Your task to perform on an android device: Open battery settings Image 0: 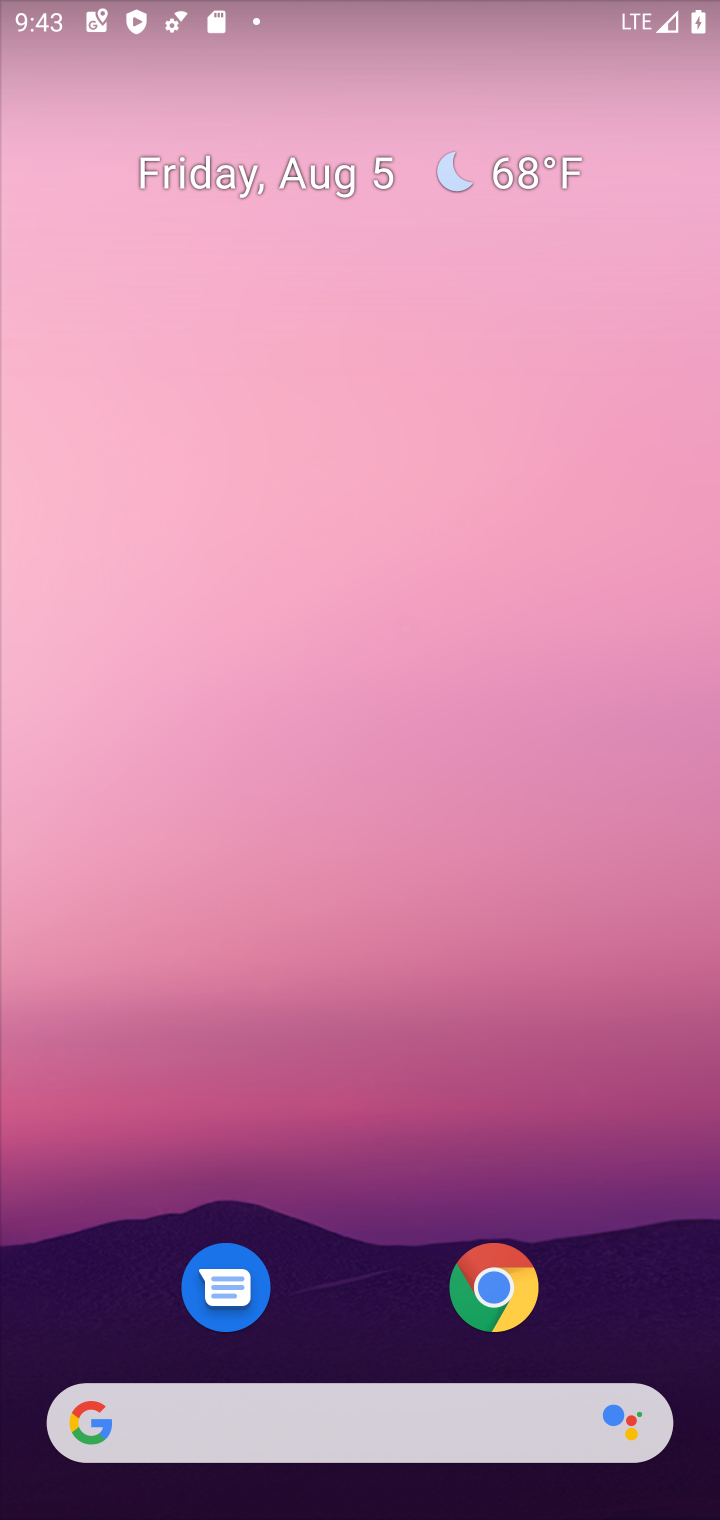
Step 0: drag from (380, 1359) to (380, 151)
Your task to perform on an android device: Open battery settings Image 1: 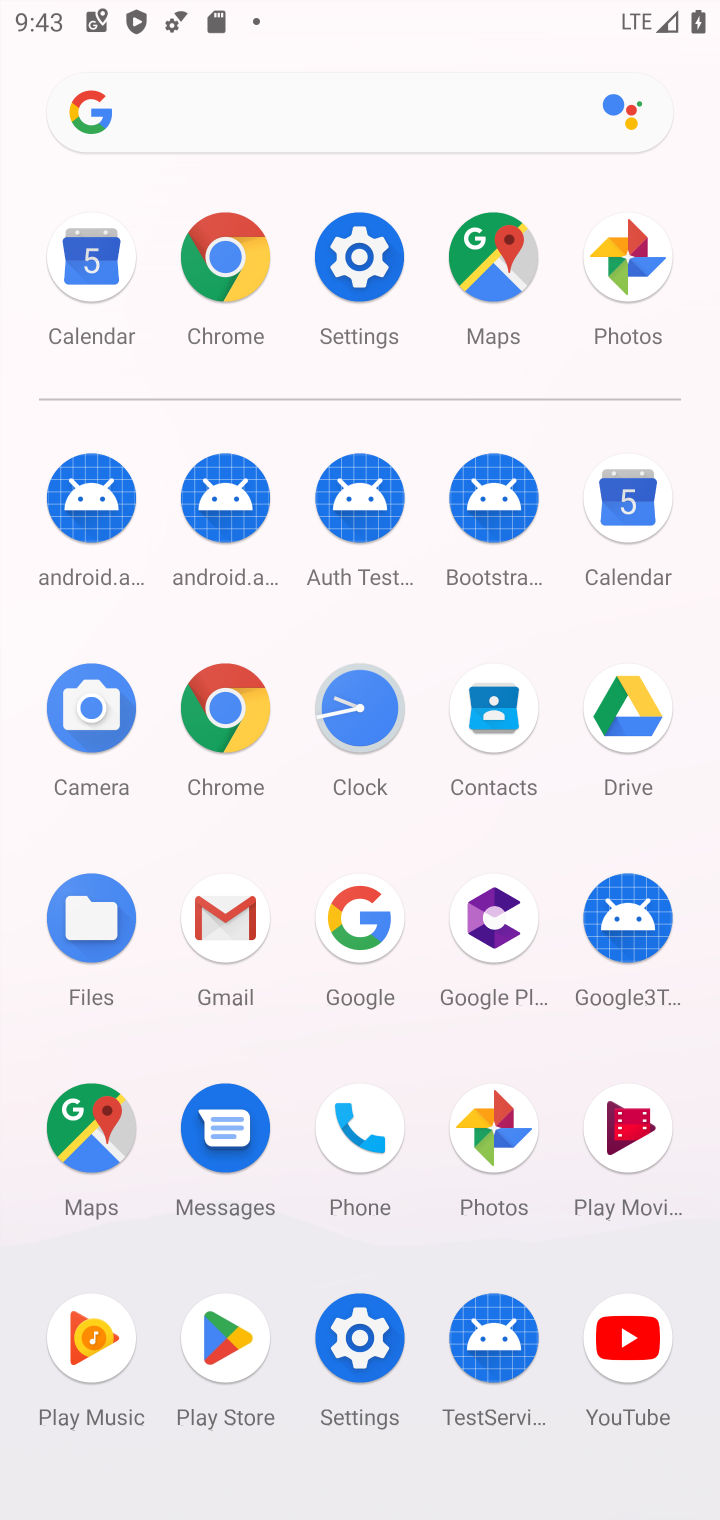
Step 1: click (361, 260)
Your task to perform on an android device: Open battery settings Image 2: 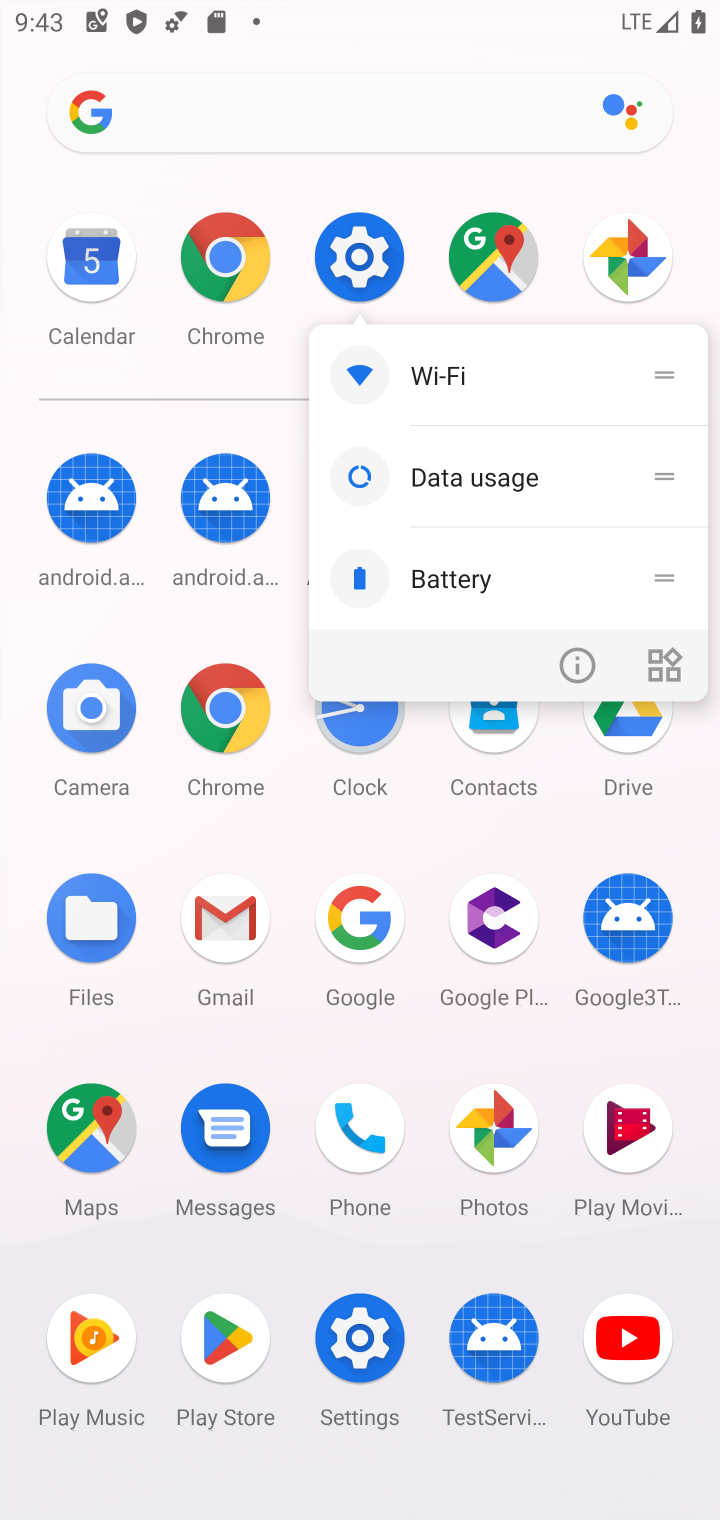
Step 2: click (344, 247)
Your task to perform on an android device: Open battery settings Image 3: 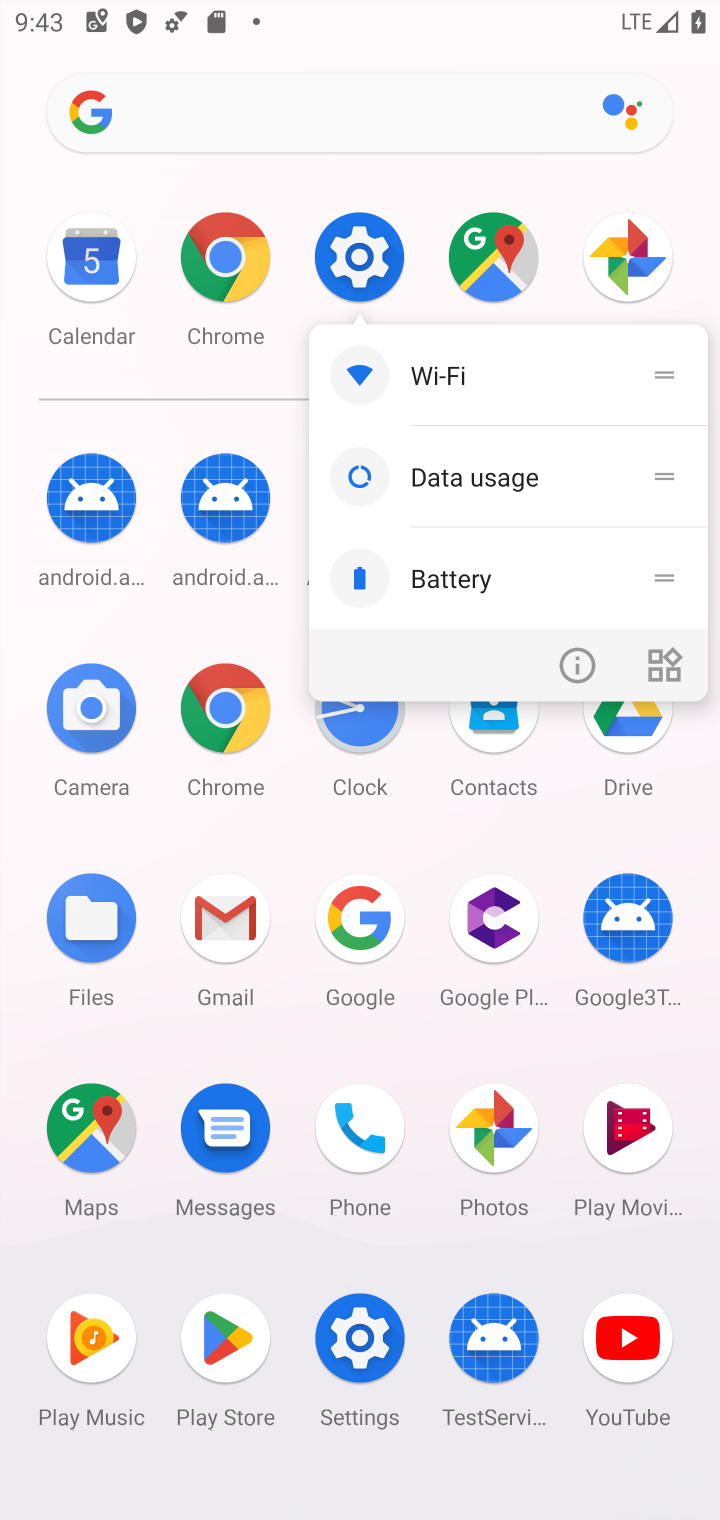
Step 3: click (358, 246)
Your task to perform on an android device: Open battery settings Image 4: 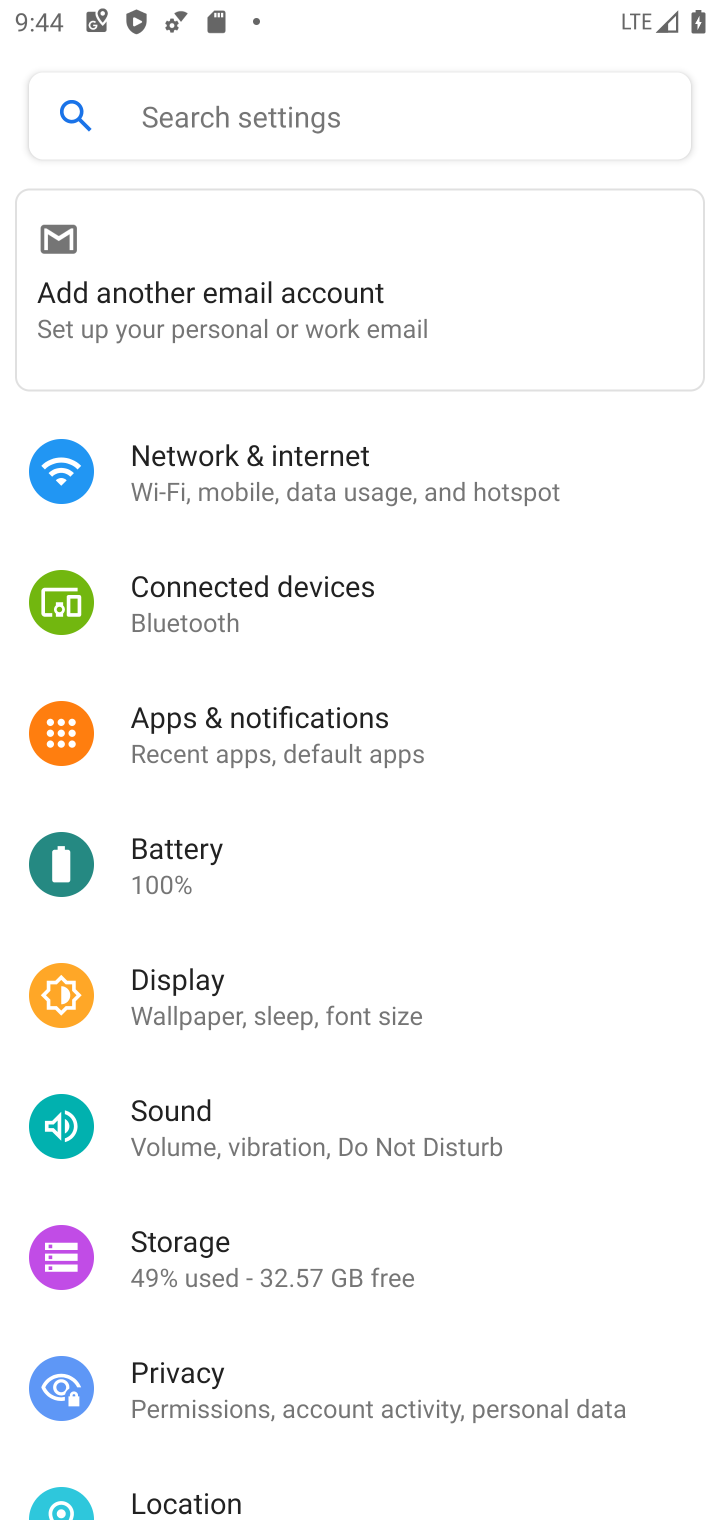
Step 4: click (168, 855)
Your task to perform on an android device: Open battery settings Image 5: 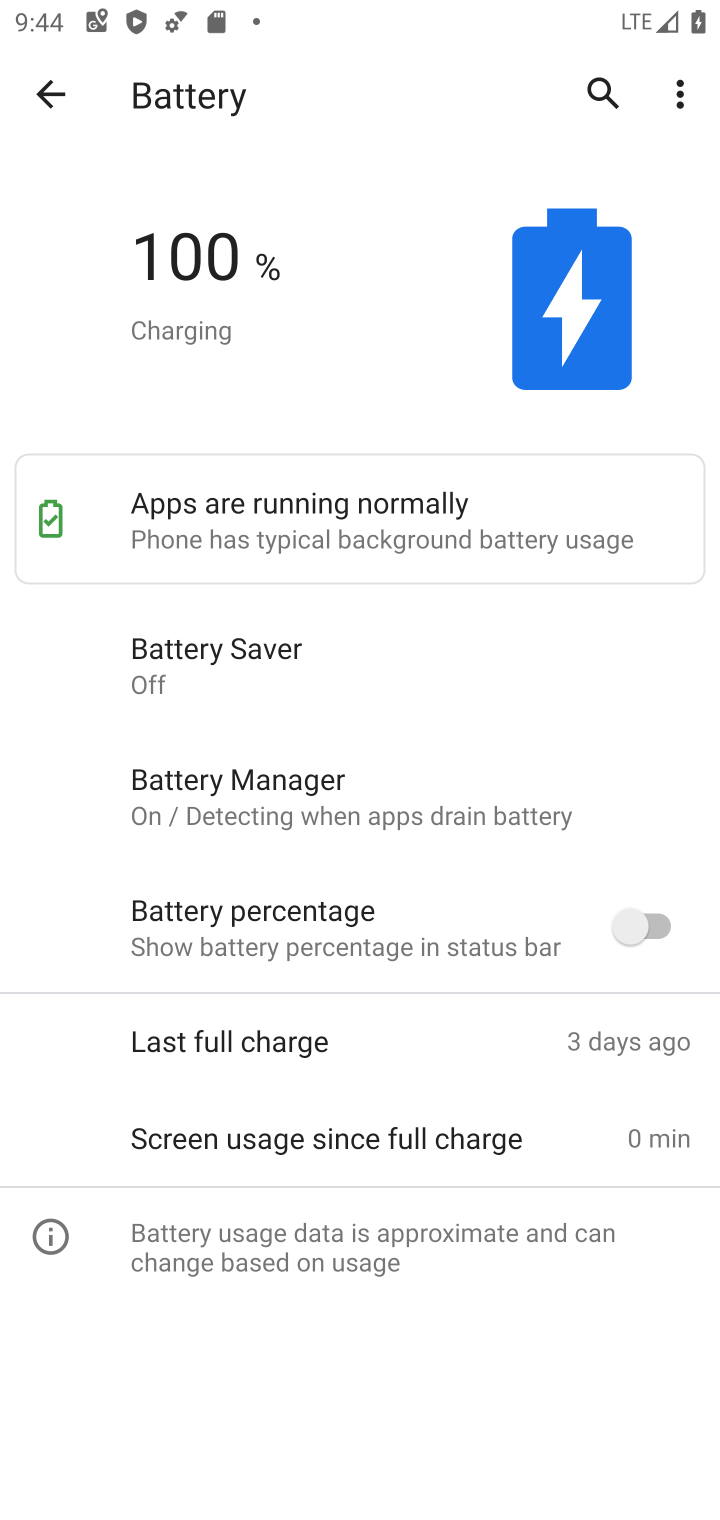
Step 5: task complete